Your task to perform on an android device: change notification settings in the gmail app Image 0: 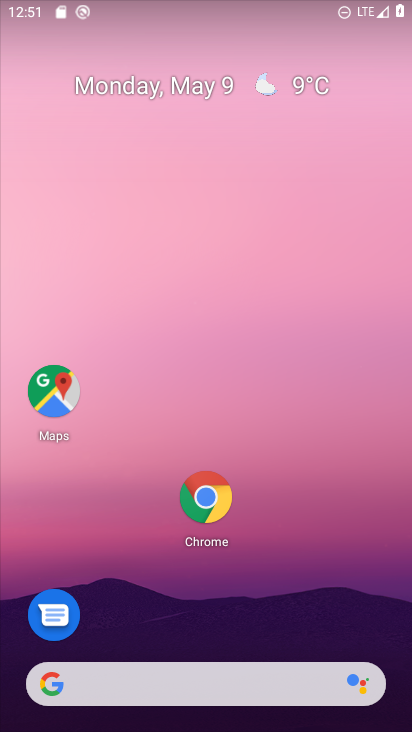
Step 0: drag from (358, 614) to (280, 3)
Your task to perform on an android device: change notification settings in the gmail app Image 1: 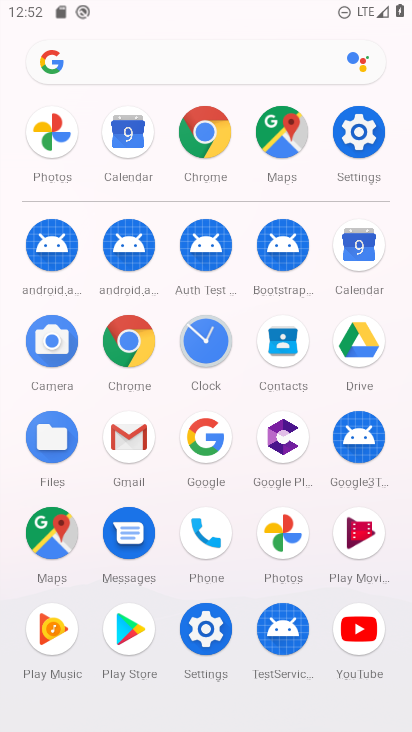
Step 1: click (138, 444)
Your task to perform on an android device: change notification settings in the gmail app Image 2: 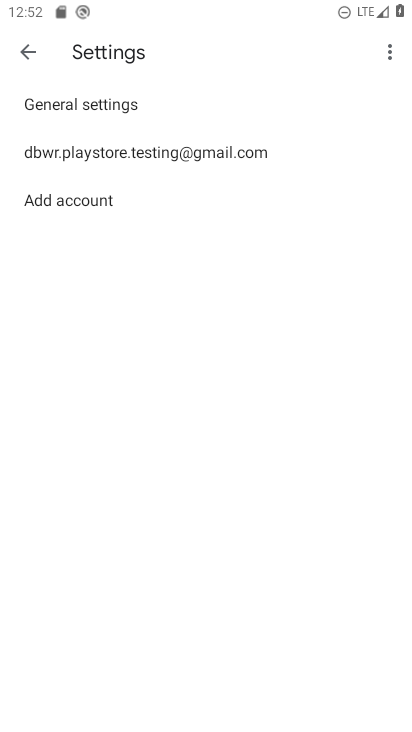
Step 2: click (138, 150)
Your task to perform on an android device: change notification settings in the gmail app Image 3: 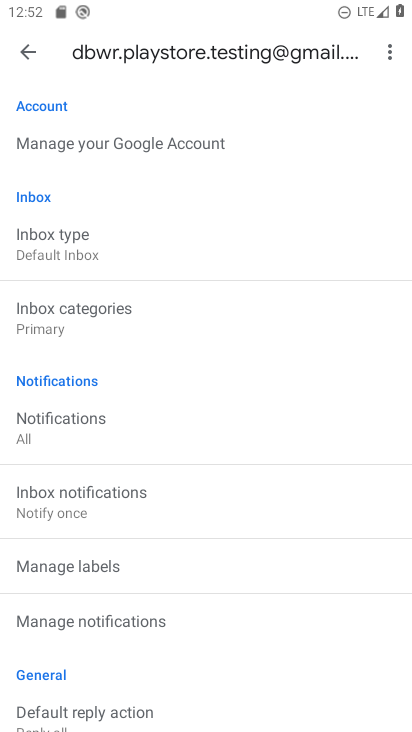
Step 3: click (81, 613)
Your task to perform on an android device: change notification settings in the gmail app Image 4: 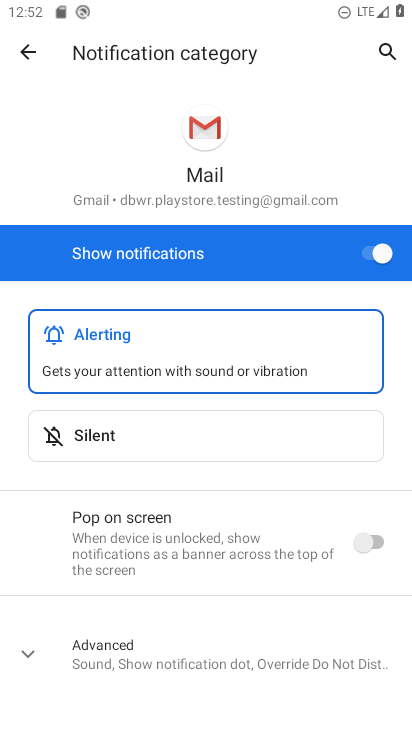
Step 4: drag from (218, 547) to (286, 34)
Your task to perform on an android device: change notification settings in the gmail app Image 5: 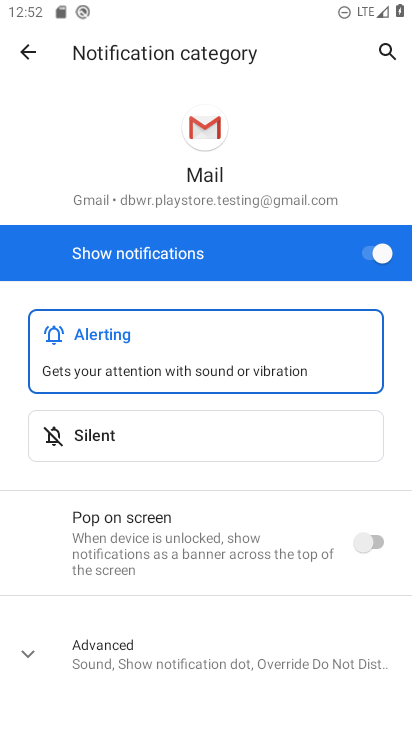
Step 5: click (389, 250)
Your task to perform on an android device: change notification settings in the gmail app Image 6: 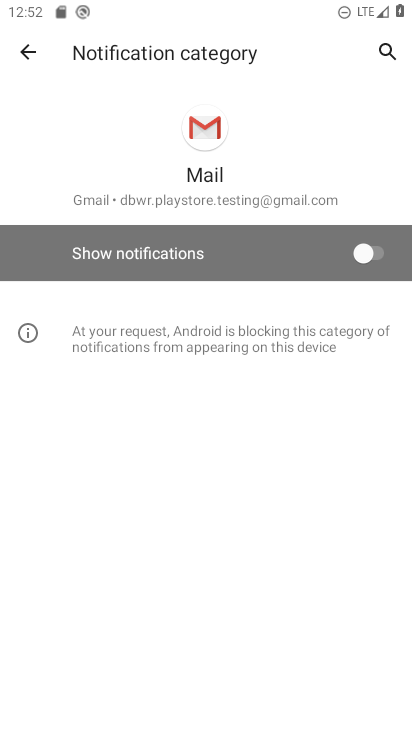
Step 6: task complete